Your task to perform on an android device: Open battery settings Image 0: 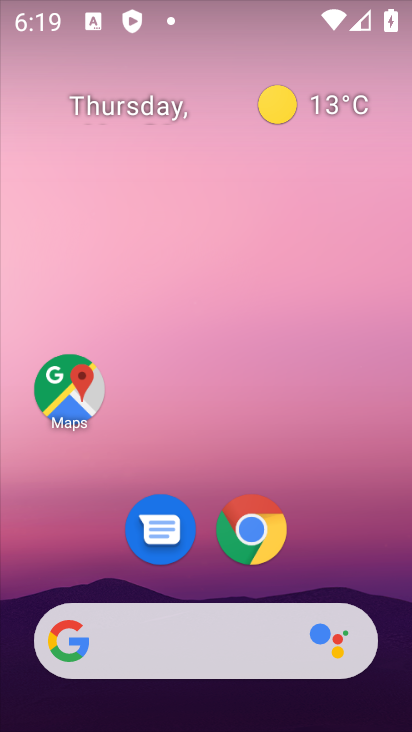
Step 0: drag from (309, 627) to (288, 197)
Your task to perform on an android device: Open battery settings Image 1: 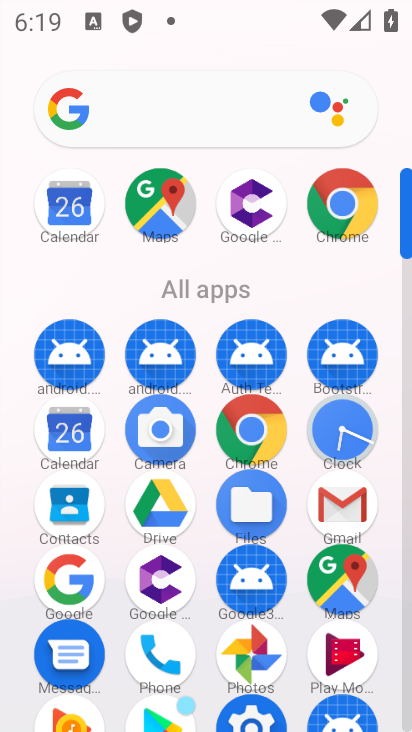
Step 1: drag from (298, 666) to (316, 419)
Your task to perform on an android device: Open battery settings Image 2: 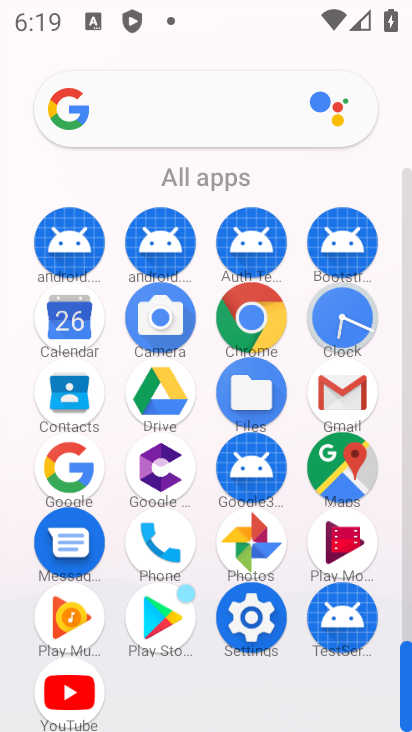
Step 2: click (248, 617)
Your task to perform on an android device: Open battery settings Image 3: 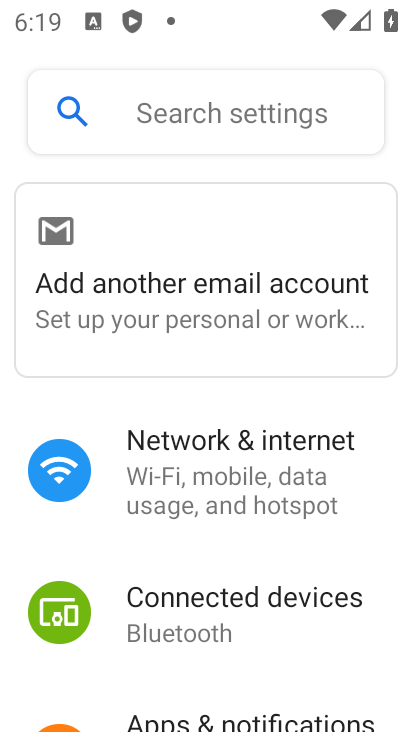
Step 3: drag from (244, 637) to (226, 138)
Your task to perform on an android device: Open battery settings Image 4: 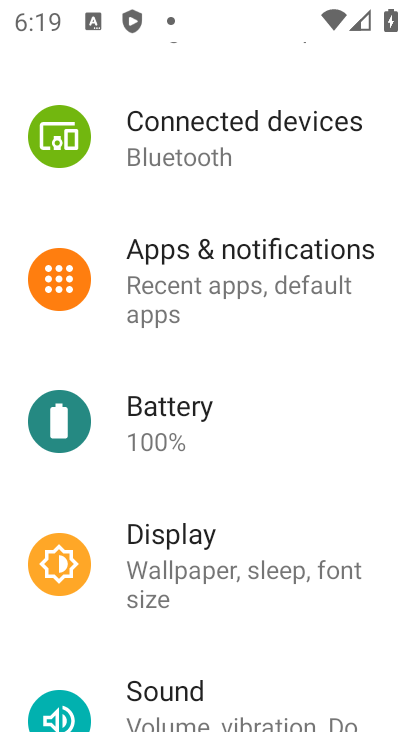
Step 4: click (196, 433)
Your task to perform on an android device: Open battery settings Image 5: 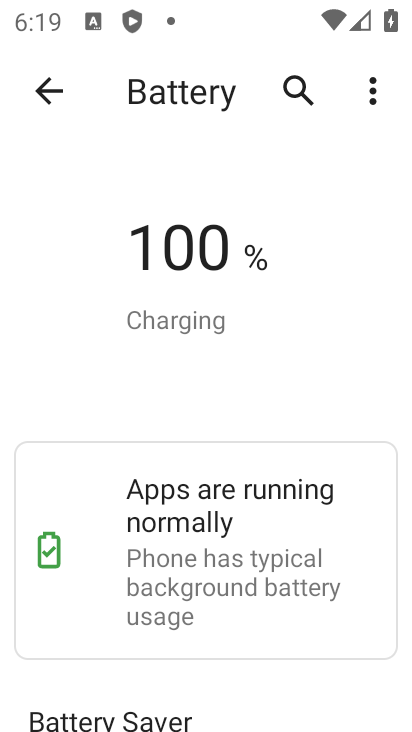
Step 5: task complete